Your task to perform on an android device: install app "Adobe Acrobat Reader: Edit PDF" Image 0: 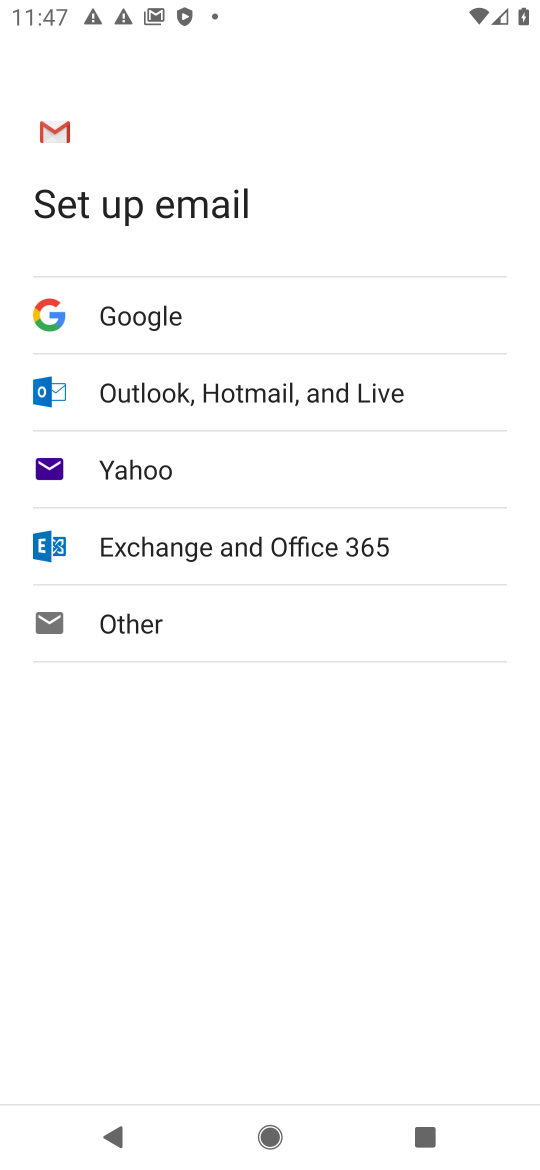
Step 0: press home button
Your task to perform on an android device: install app "Adobe Acrobat Reader: Edit PDF" Image 1: 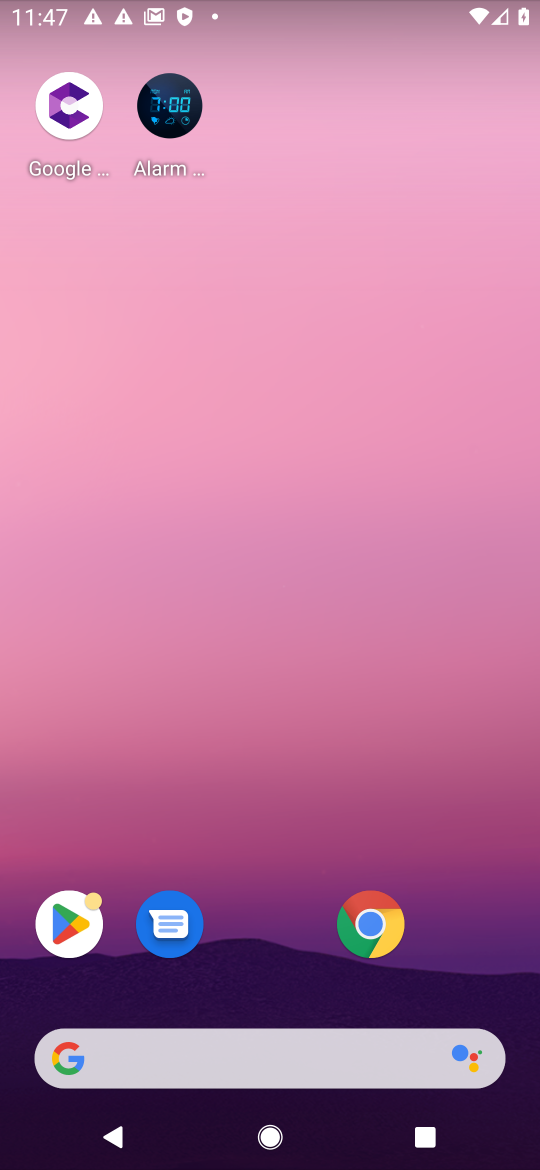
Step 1: click (81, 924)
Your task to perform on an android device: install app "Adobe Acrobat Reader: Edit PDF" Image 2: 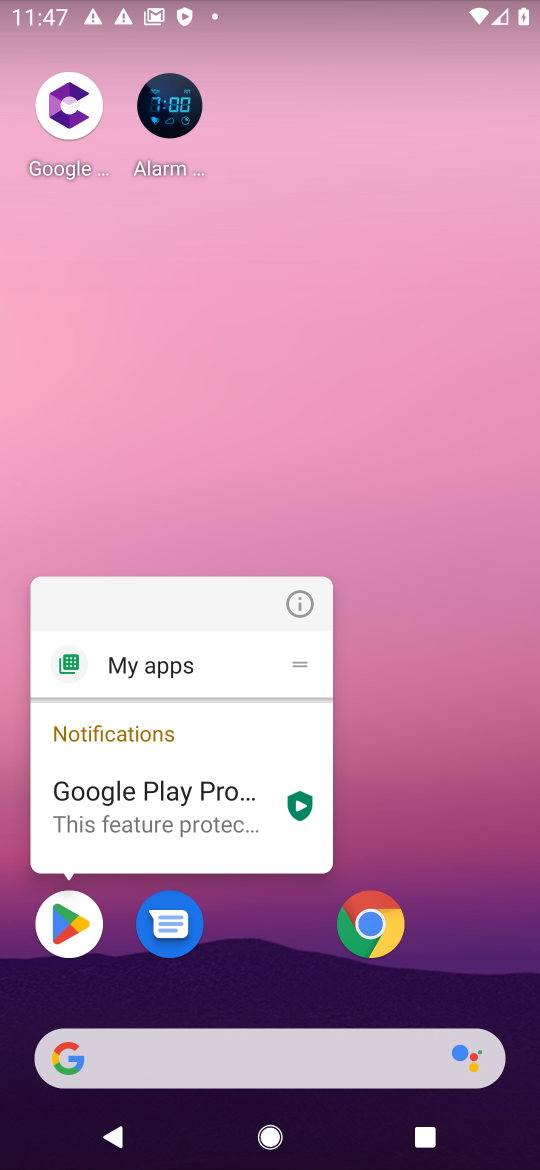
Step 2: click (62, 907)
Your task to perform on an android device: install app "Adobe Acrobat Reader: Edit PDF" Image 3: 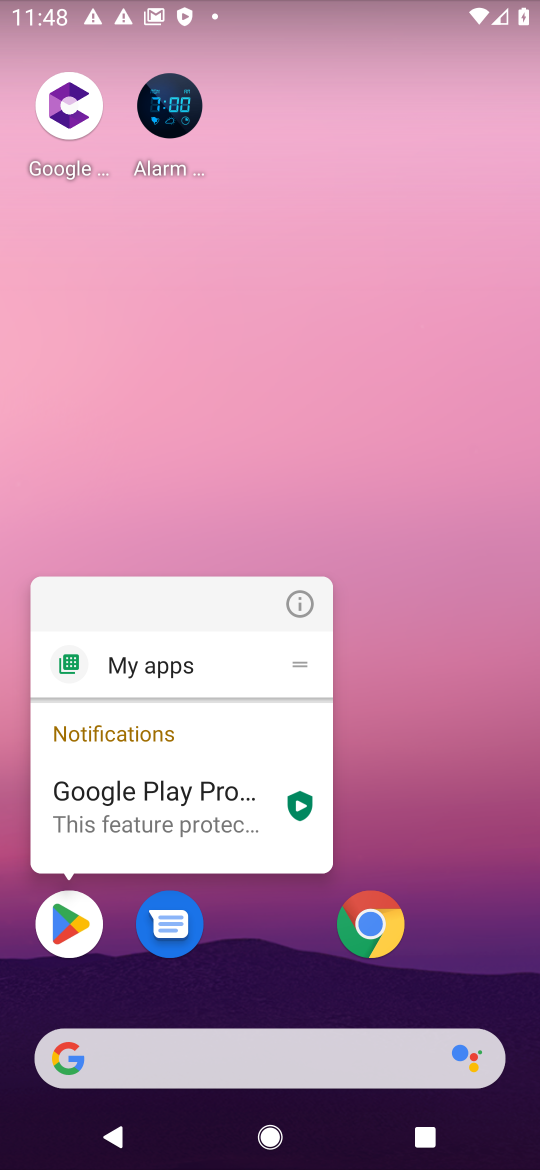
Step 3: click (58, 912)
Your task to perform on an android device: install app "Adobe Acrobat Reader: Edit PDF" Image 4: 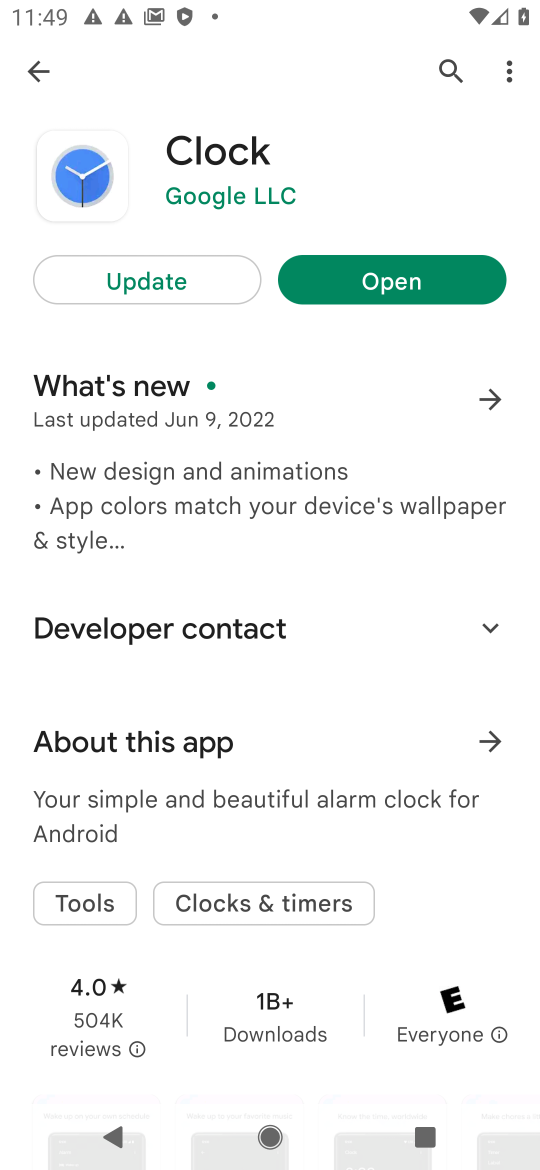
Step 4: type "Adobe Acrobat Reader: Edit PDF"
Your task to perform on an android device: install app "Adobe Acrobat Reader: Edit PDF" Image 5: 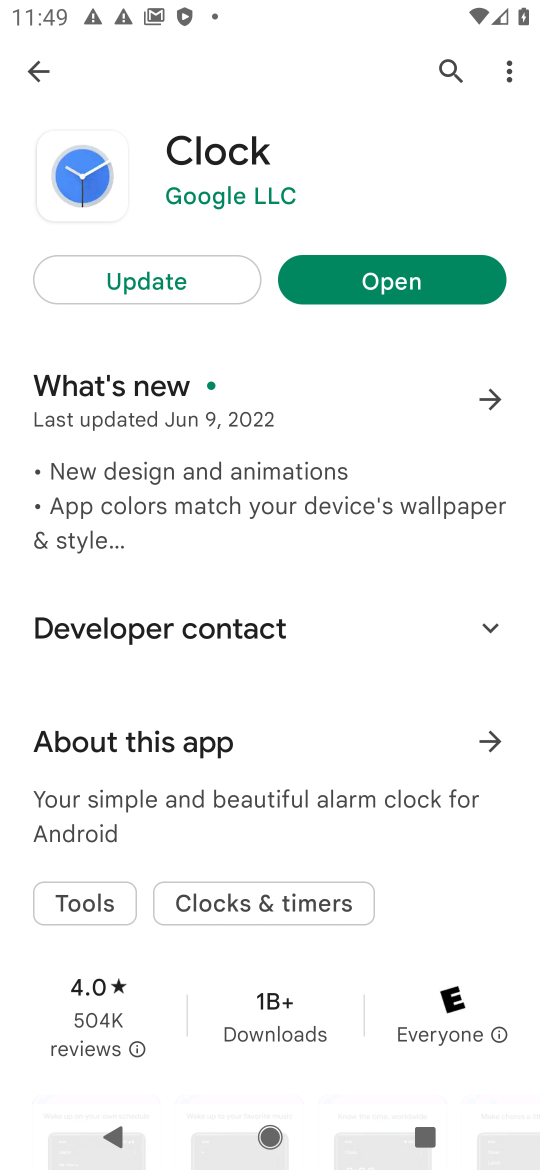
Step 5: click (455, 74)
Your task to perform on an android device: install app "Adobe Acrobat Reader: Edit PDF" Image 6: 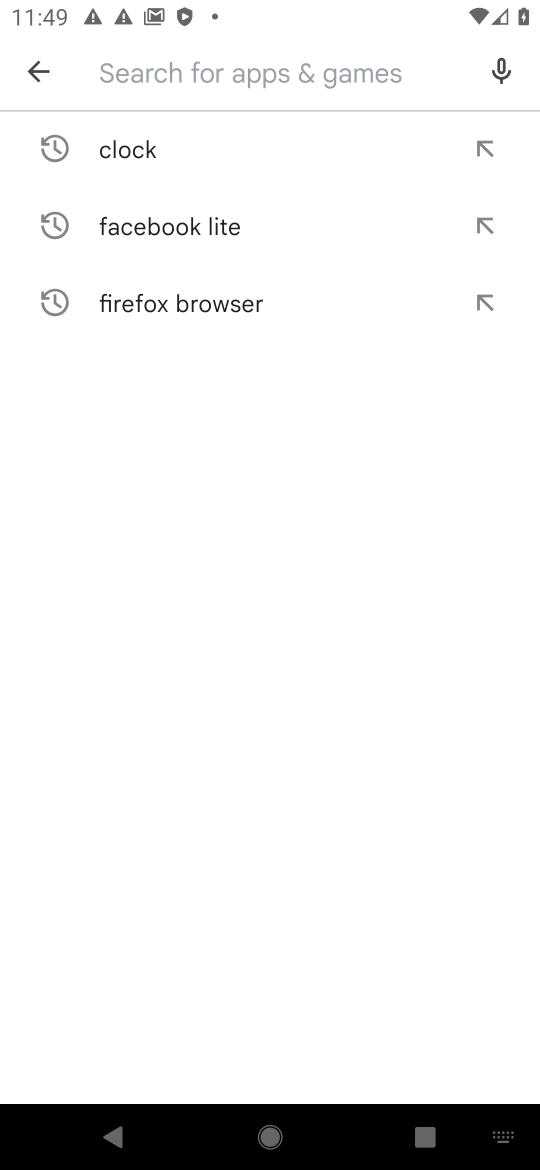
Step 6: type "Adobe Acrobat Reader: Edit PDF"
Your task to perform on an android device: install app "Adobe Acrobat Reader: Edit PDF" Image 7: 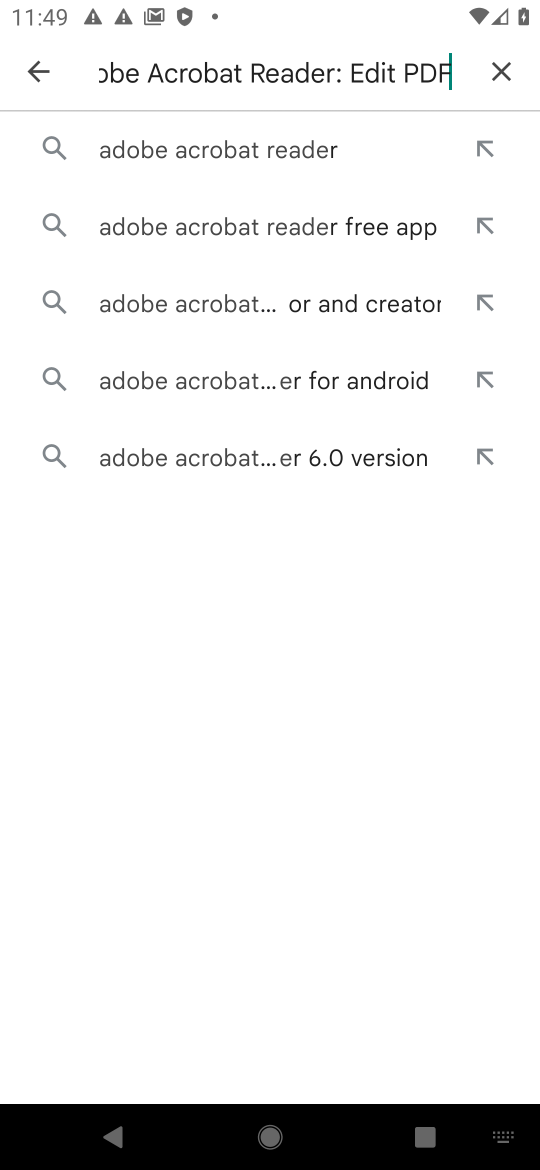
Step 7: type ""
Your task to perform on an android device: install app "Adobe Acrobat Reader: Edit PDF" Image 8: 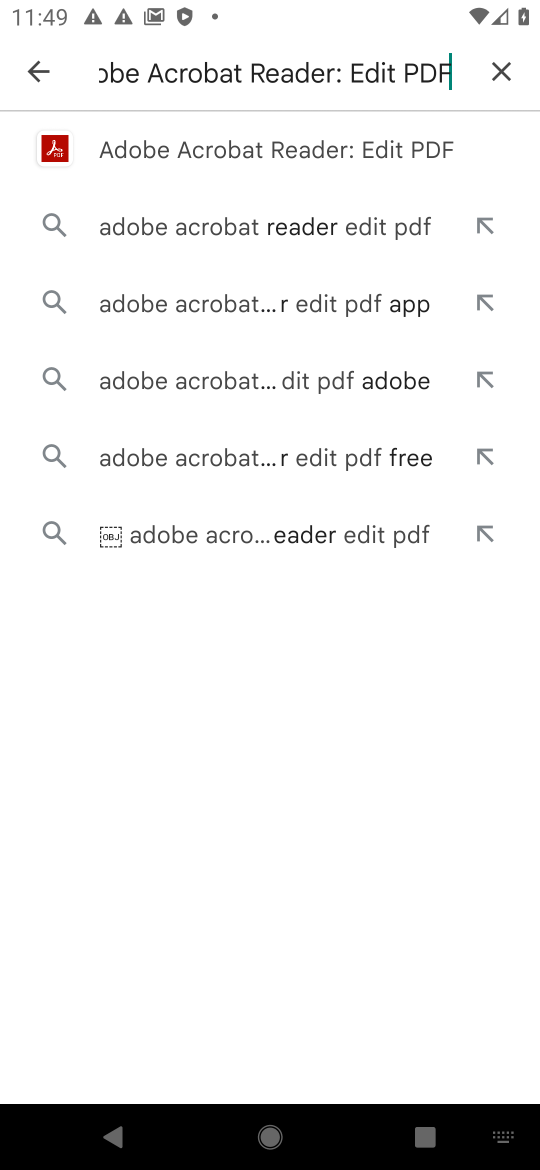
Step 8: click (204, 128)
Your task to perform on an android device: install app "Adobe Acrobat Reader: Edit PDF" Image 9: 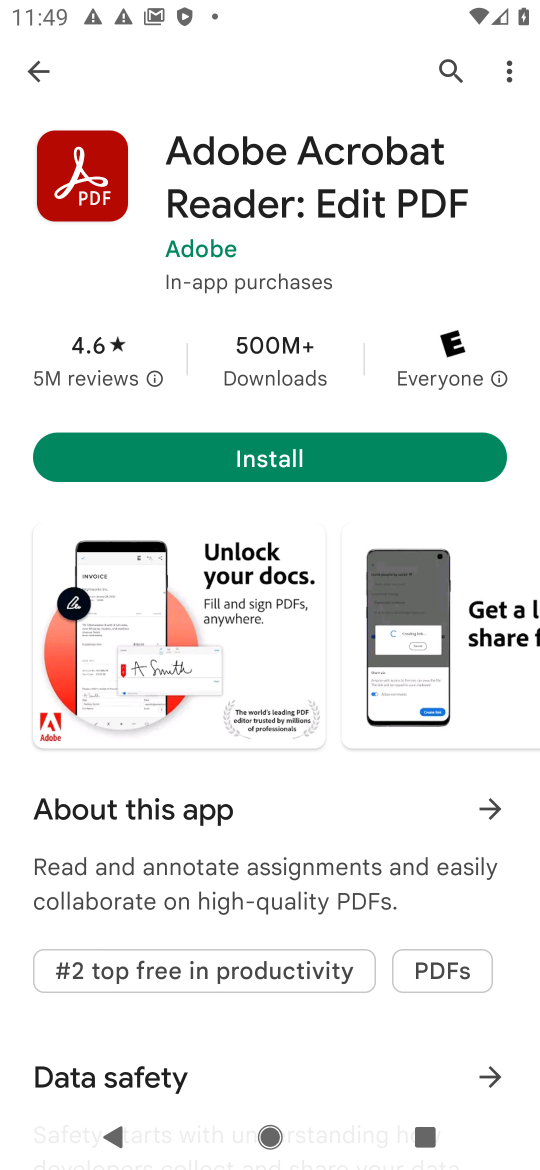
Step 9: click (274, 459)
Your task to perform on an android device: install app "Adobe Acrobat Reader: Edit PDF" Image 10: 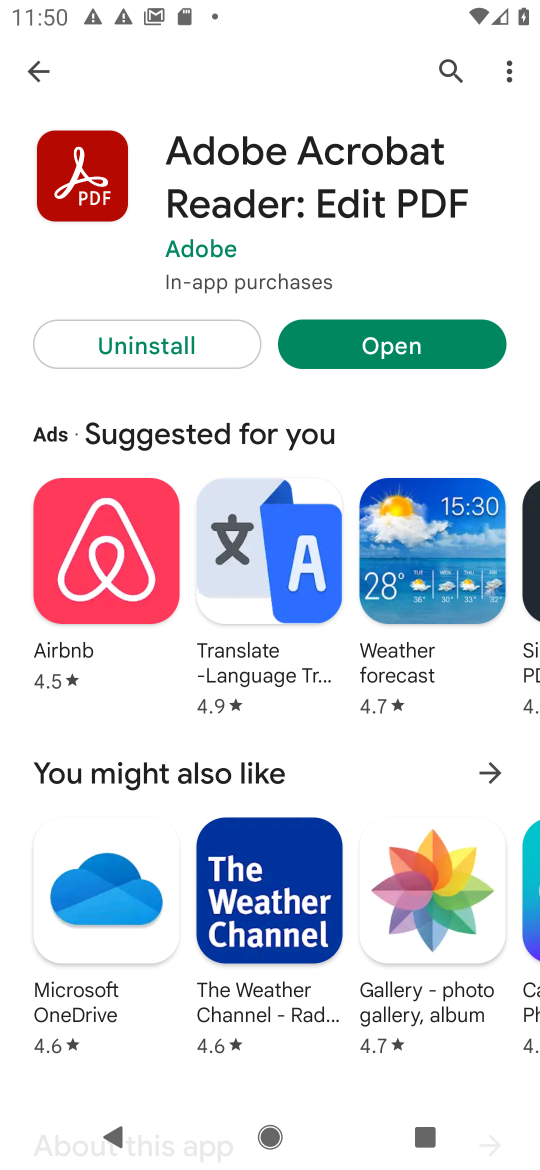
Step 10: click (375, 335)
Your task to perform on an android device: install app "Adobe Acrobat Reader: Edit PDF" Image 11: 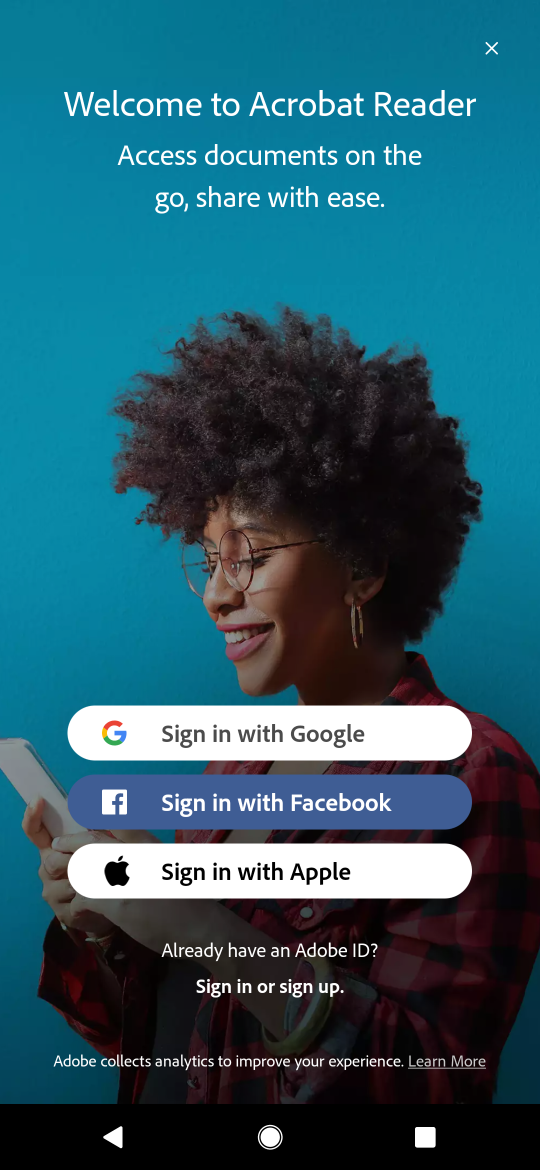
Step 11: click (228, 723)
Your task to perform on an android device: install app "Adobe Acrobat Reader: Edit PDF" Image 12: 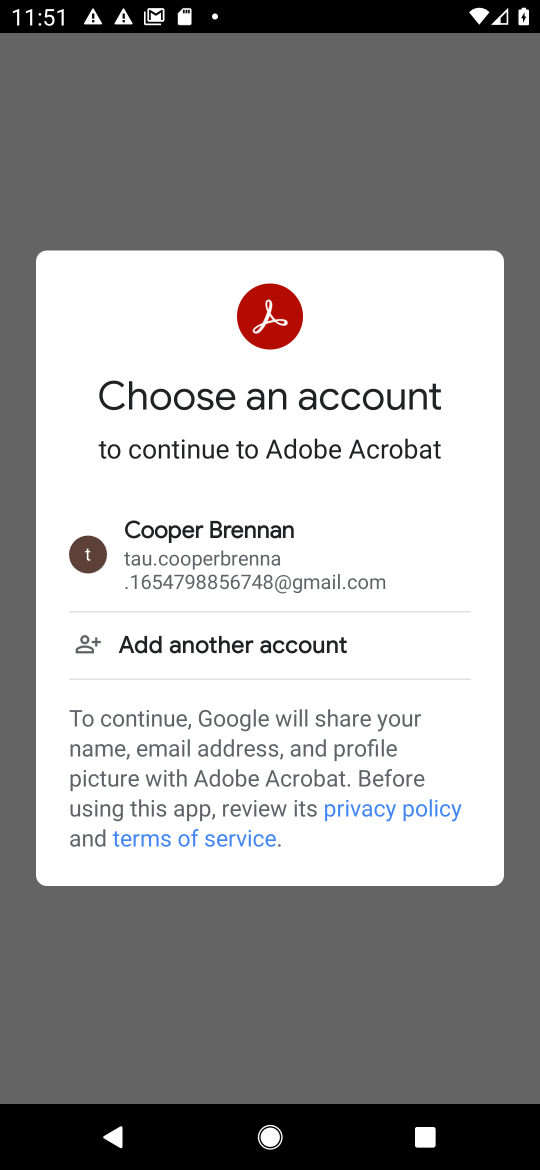
Step 12: click (231, 519)
Your task to perform on an android device: install app "Adobe Acrobat Reader: Edit PDF" Image 13: 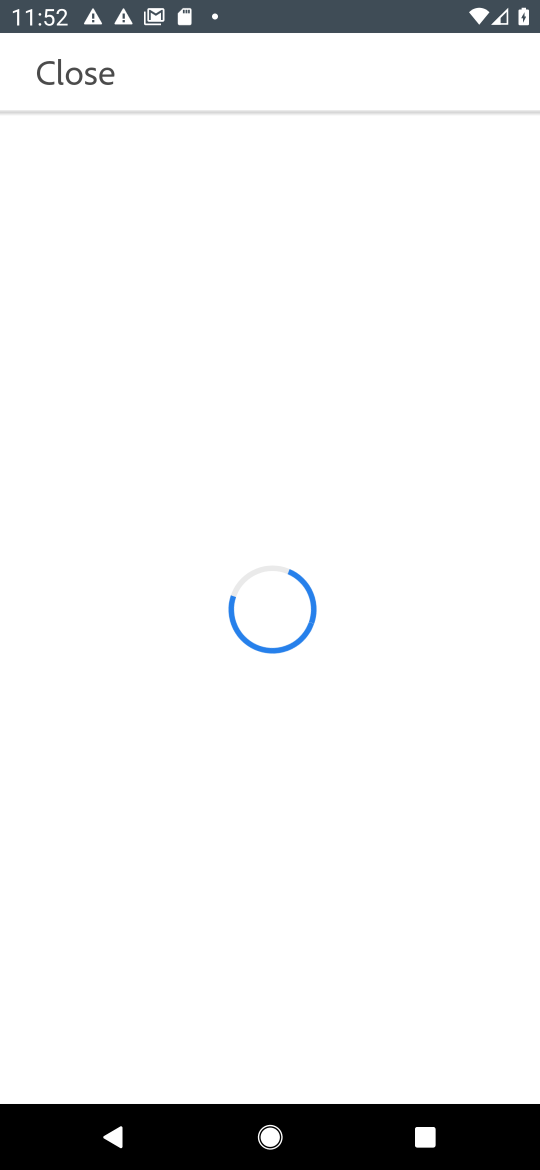
Step 13: task complete